Your task to perform on an android device: clear history in the chrome app Image 0: 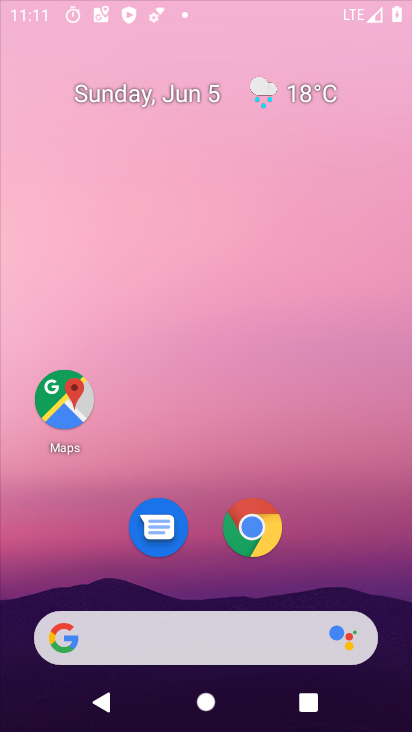
Step 0: drag from (333, 524) to (276, 40)
Your task to perform on an android device: clear history in the chrome app Image 1: 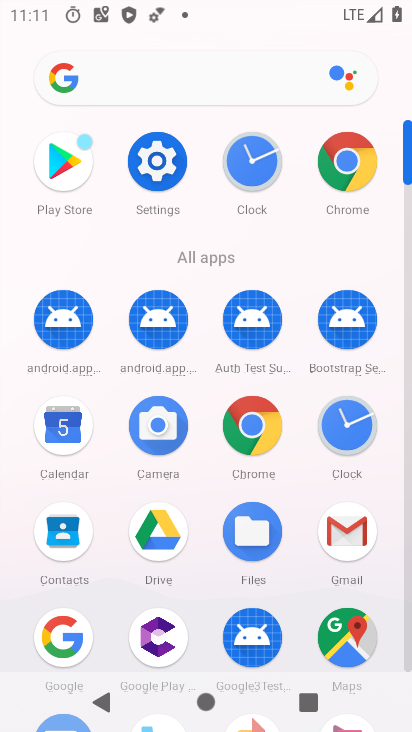
Step 1: click (246, 438)
Your task to perform on an android device: clear history in the chrome app Image 2: 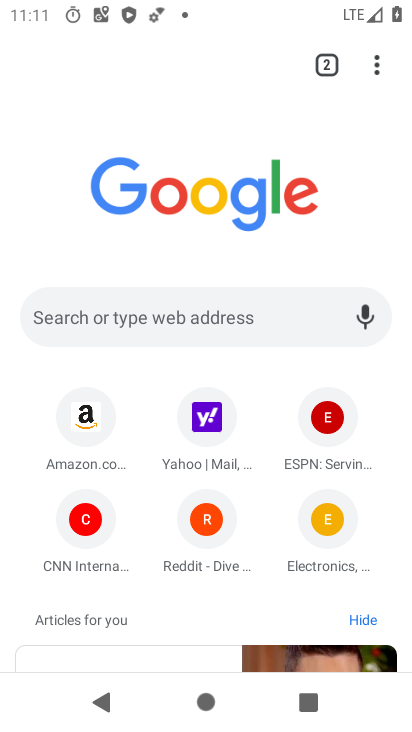
Step 2: click (375, 79)
Your task to perform on an android device: clear history in the chrome app Image 3: 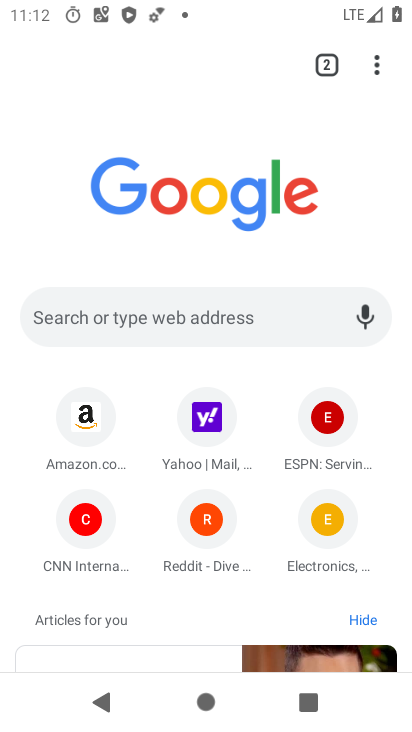
Step 3: click (374, 67)
Your task to perform on an android device: clear history in the chrome app Image 4: 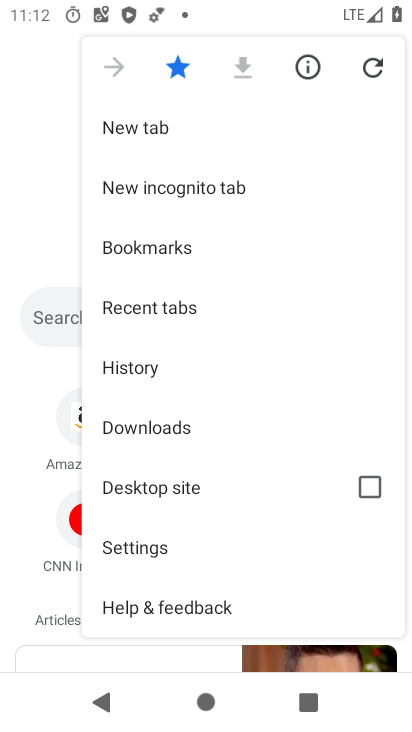
Step 4: click (180, 363)
Your task to perform on an android device: clear history in the chrome app Image 5: 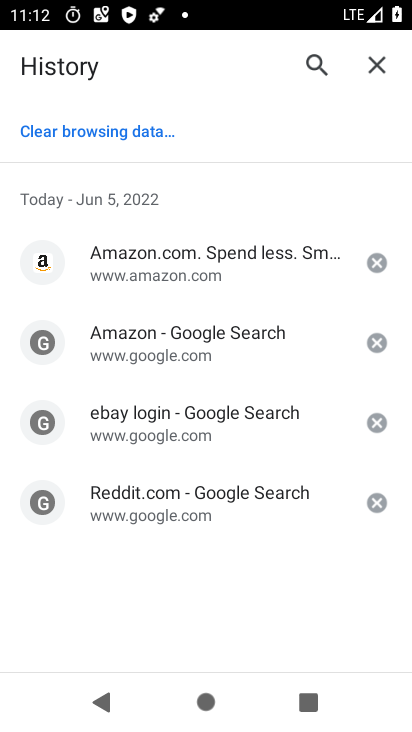
Step 5: click (132, 134)
Your task to perform on an android device: clear history in the chrome app Image 6: 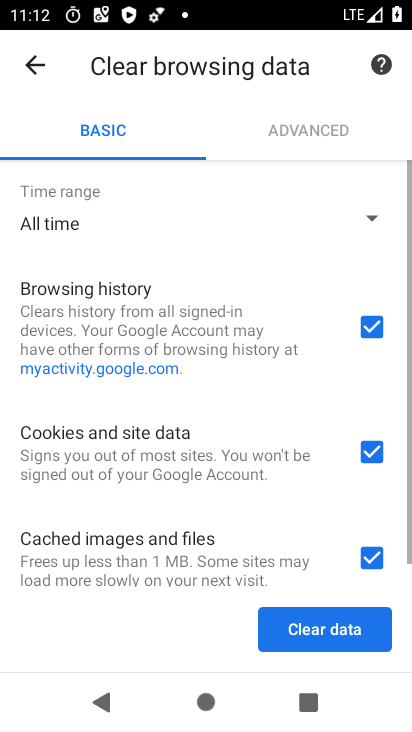
Step 6: click (348, 623)
Your task to perform on an android device: clear history in the chrome app Image 7: 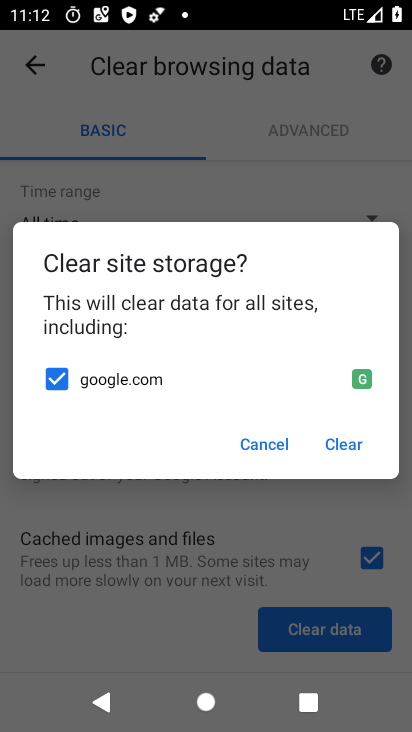
Step 7: click (337, 442)
Your task to perform on an android device: clear history in the chrome app Image 8: 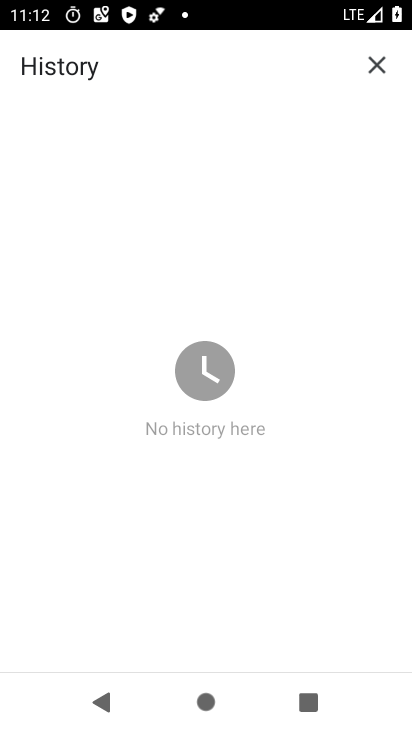
Step 8: task complete